Your task to perform on an android device: Open Wikipedia Image 0: 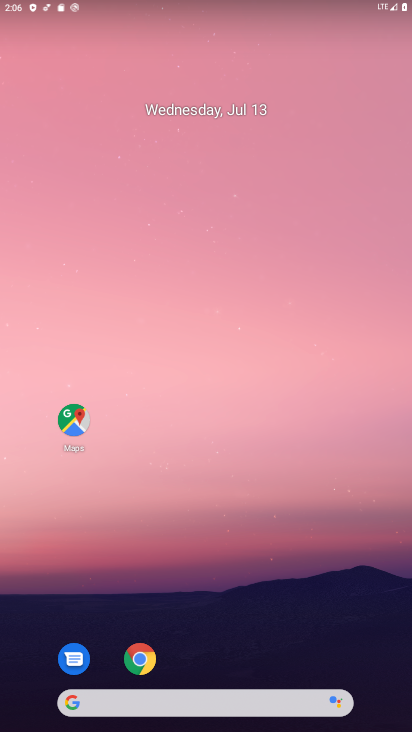
Step 0: click (141, 659)
Your task to perform on an android device: Open Wikipedia Image 1: 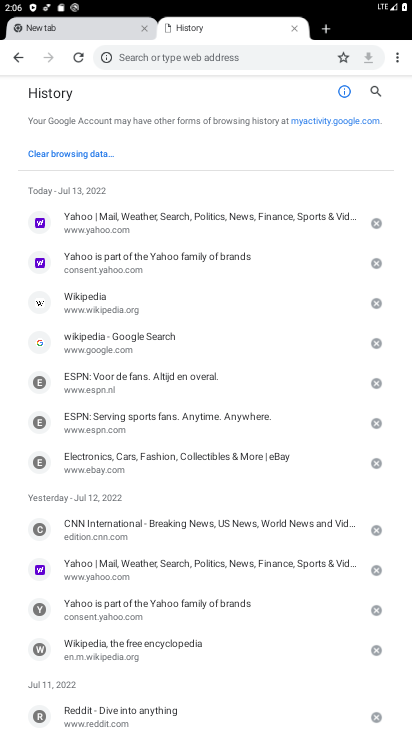
Step 1: click (195, 60)
Your task to perform on an android device: Open Wikipedia Image 2: 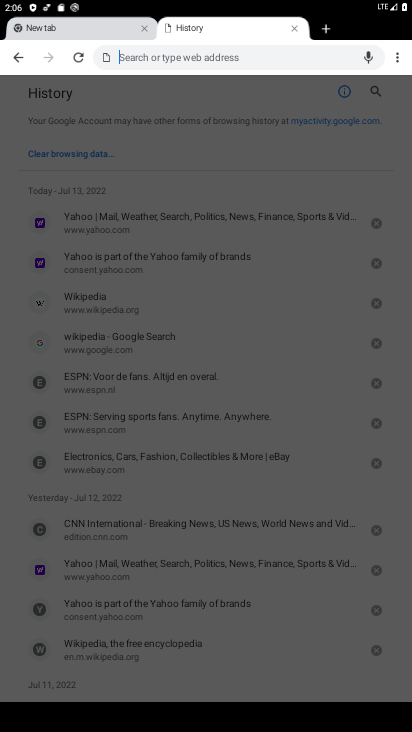
Step 2: type "Wikipedia"
Your task to perform on an android device: Open Wikipedia Image 3: 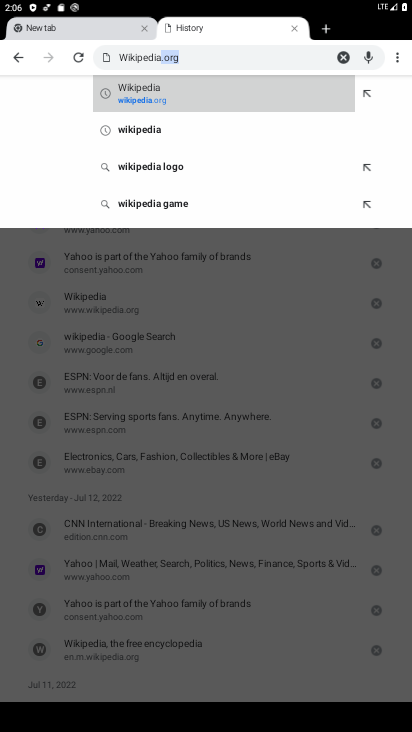
Step 3: click (132, 87)
Your task to perform on an android device: Open Wikipedia Image 4: 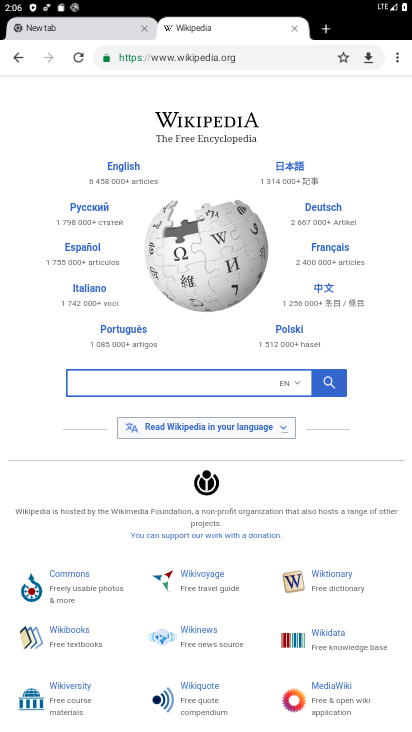
Step 4: task complete